Your task to perform on an android device: Turn off the flashlight Image 0: 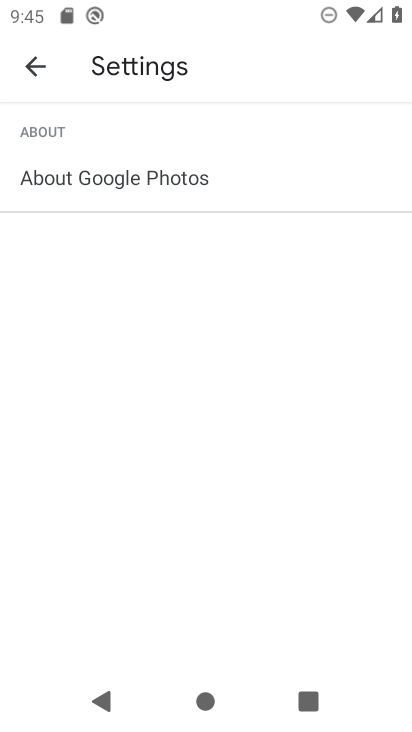
Step 0: press home button
Your task to perform on an android device: Turn off the flashlight Image 1: 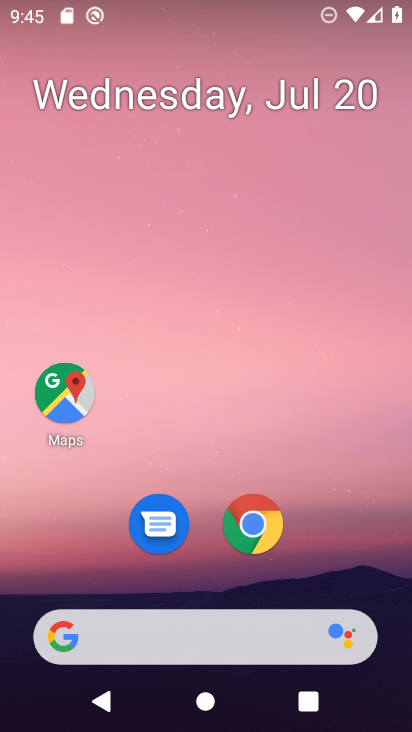
Step 1: task complete